Your task to perform on an android device: set an alarm Image 0: 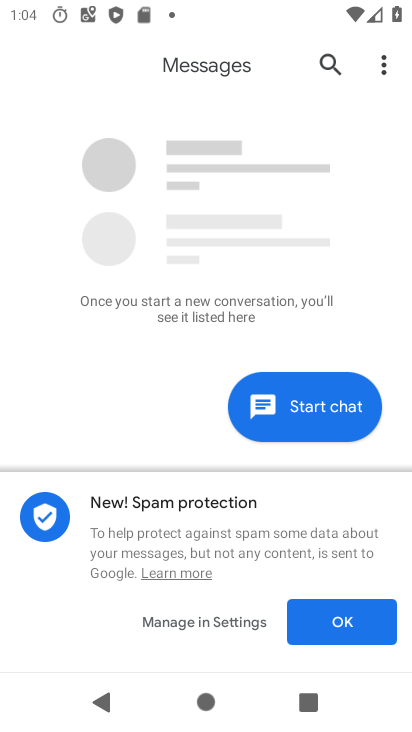
Step 0: press home button
Your task to perform on an android device: set an alarm Image 1: 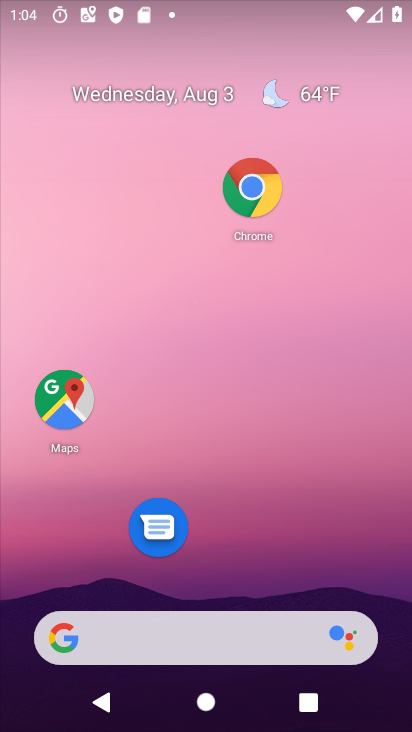
Step 1: drag from (195, 597) to (205, 31)
Your task to perform on an android device: set an alarm Image 2: 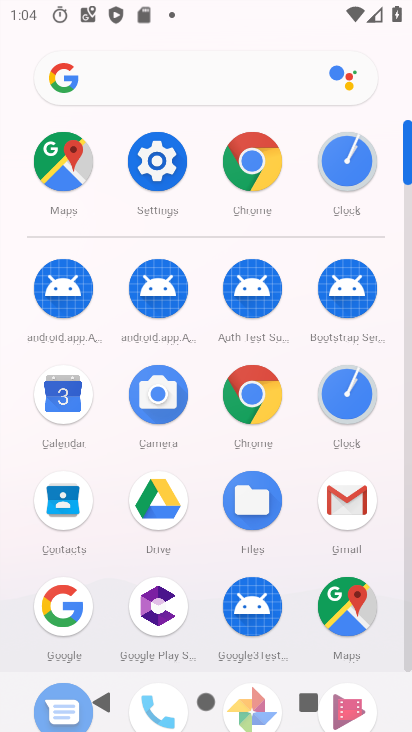
Step 2: click (351, 421)
Your task to perform on an android device: set an alarm Image 3: 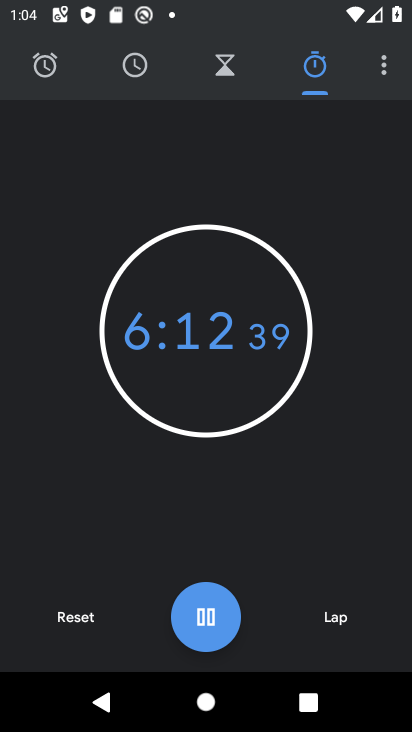
Step 3: click (72, 614)
Your task to perform on an android device: set an alarm Image 4: 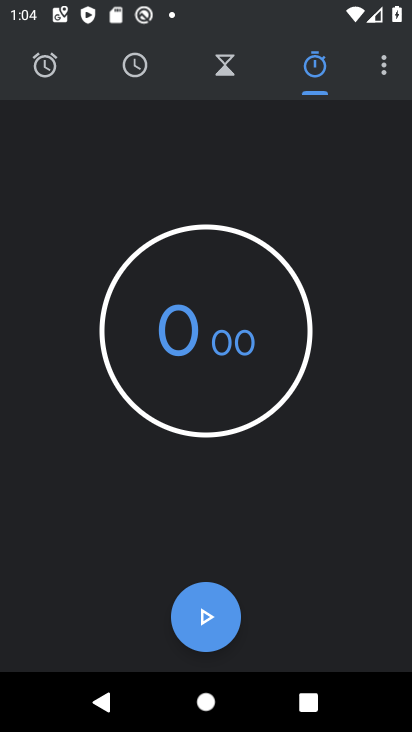
Step 4: click (49, 56)
Your task to perform on an android device: set an alarm Image 5: 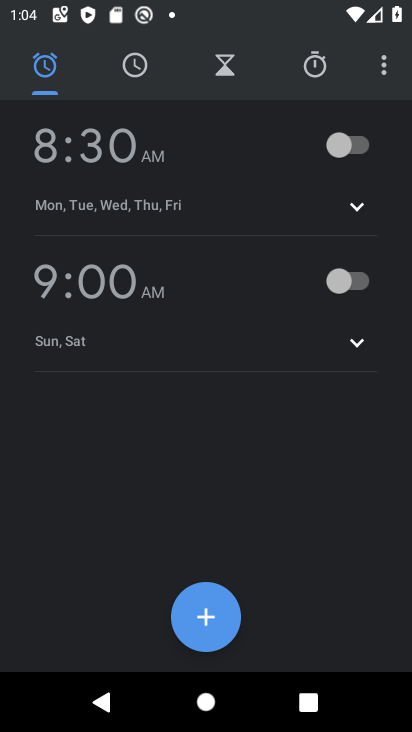
Step 5: click (61, 271)
Your task to perform on an android device: set an alarm Image 6: 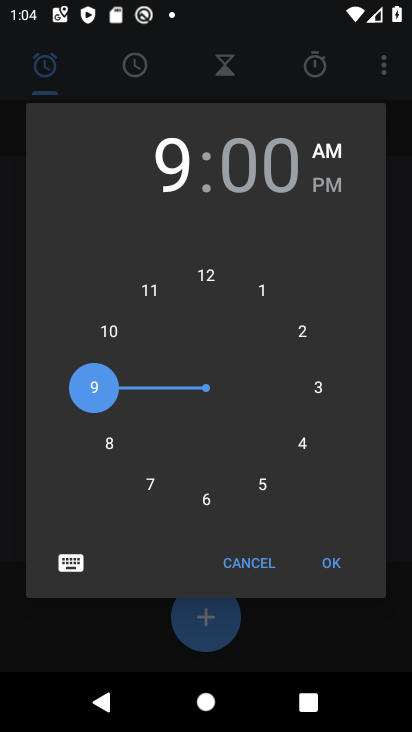
Step 6: click (123, 446)
Your task to perform on an android device: set an alarm Image 7: 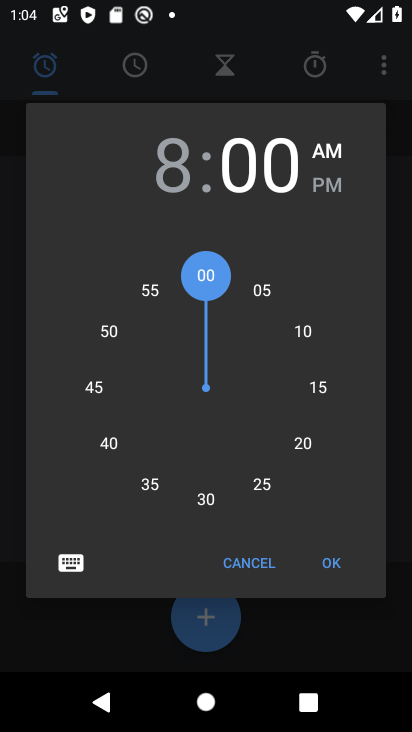
Step 7: click (310, 337)
Your task to perform on an android device: set an alarm Image 8: 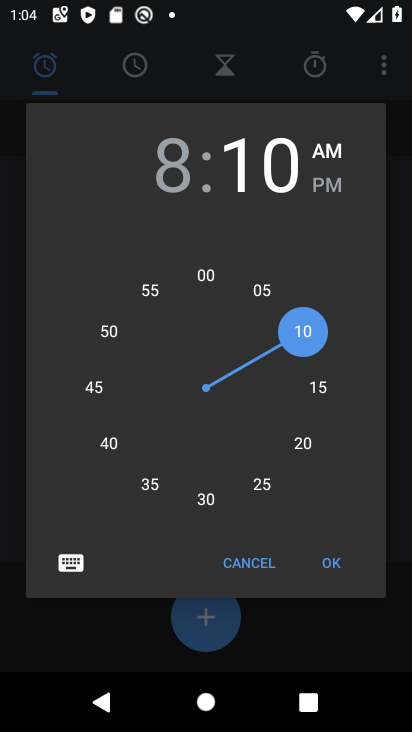
Step 8: click (339, 565)
Your task to perform on an android device: set an alarm Image 9: 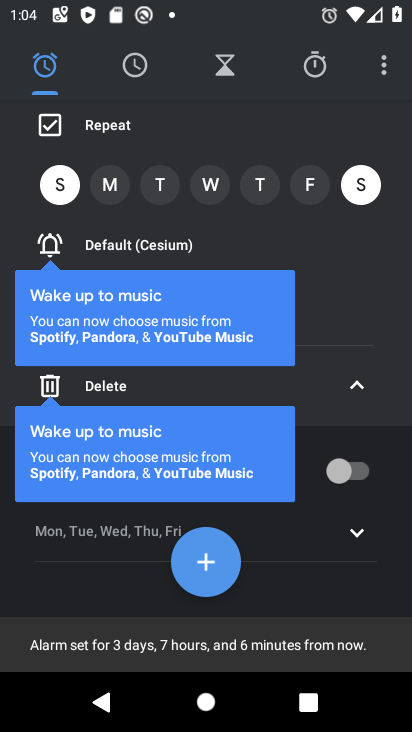
Step 9: click (164, 186)
Your task to perform on an android device: set an alarm Image 10: 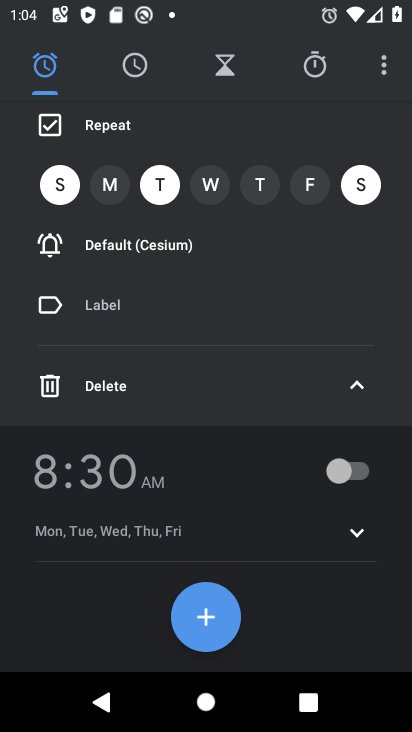
Step 10: click (222, 185)
Your task to perform on an android device: set an alarm Image 11: 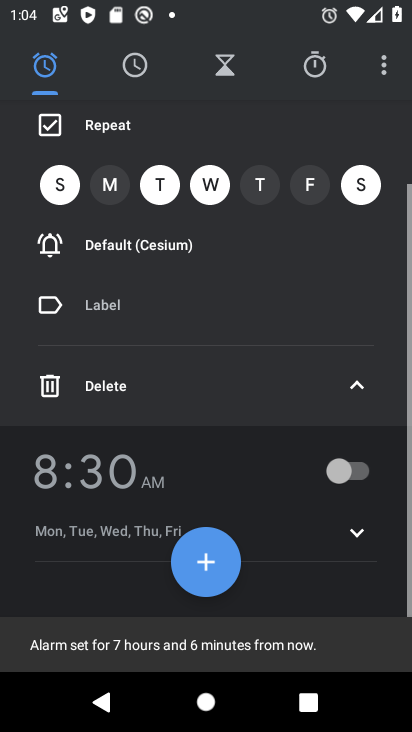
Step 11: click (316, 186)
Your task to perform on an android device: set an alarm Image 12: 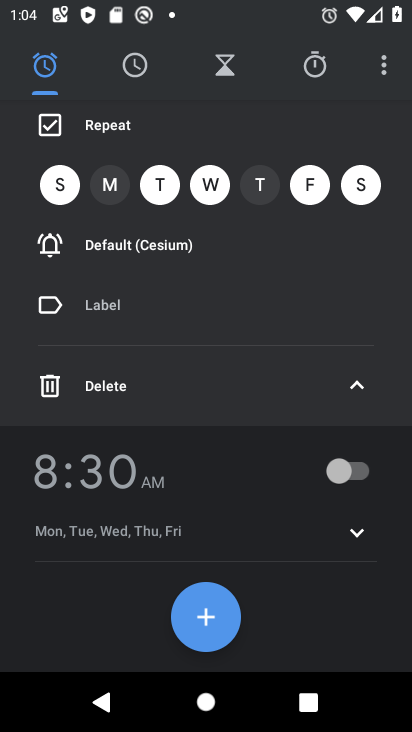
Step 12: task complete